Your task to perform on an android device: Add "duracell triple a" to the cart on target, then select checkout. Image 0: 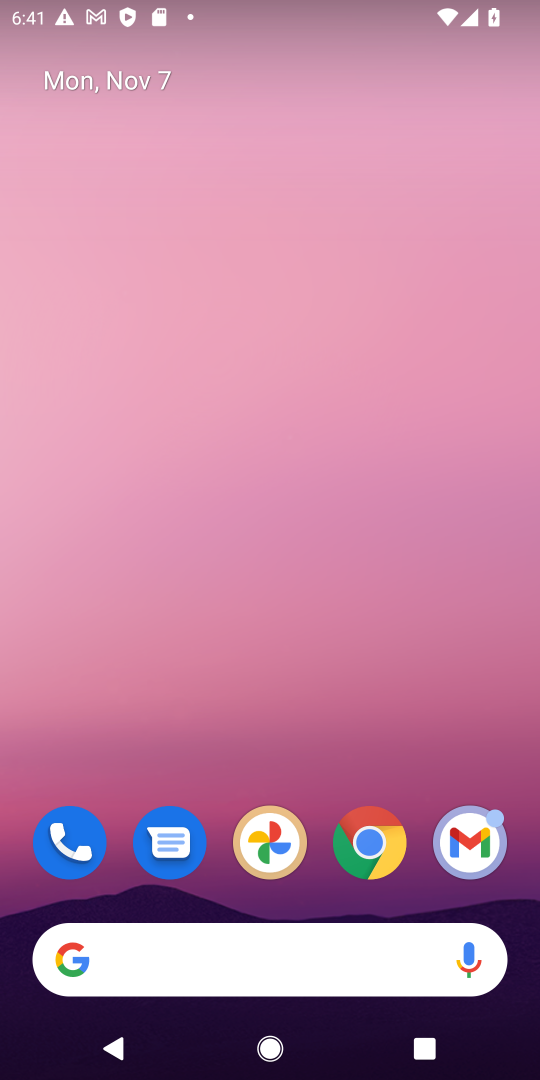
Step 0: drag from (300, 868) to (223, 217)
Your task to perform on an android device: Add "duracell triple a" to the cart on target, then select checkout. Image 1: 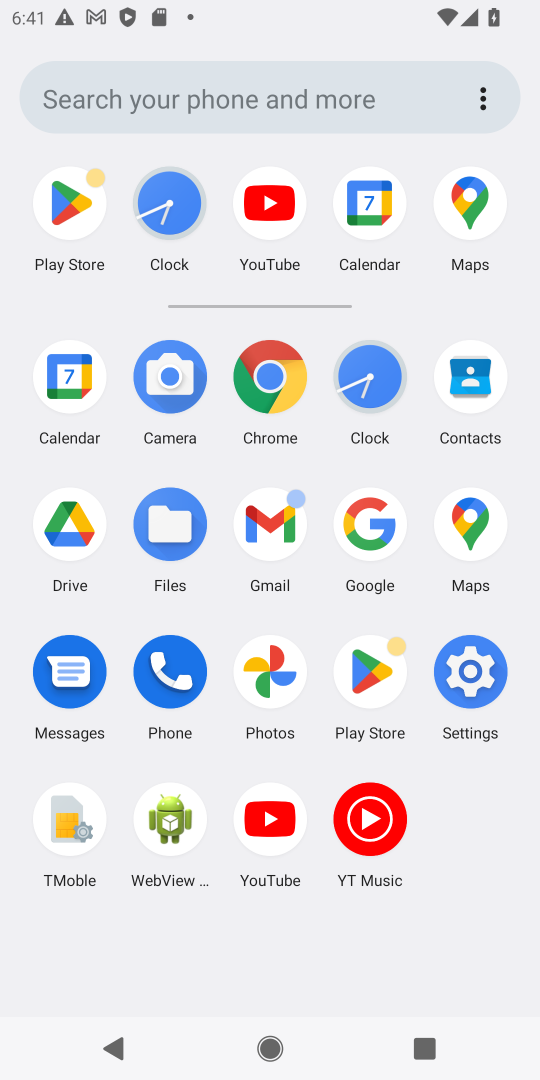
Step 1: click (277, 411)
Your task to perform on an android device: Add "duracell triple a" to the cart on target, then select checkout. Image 2: 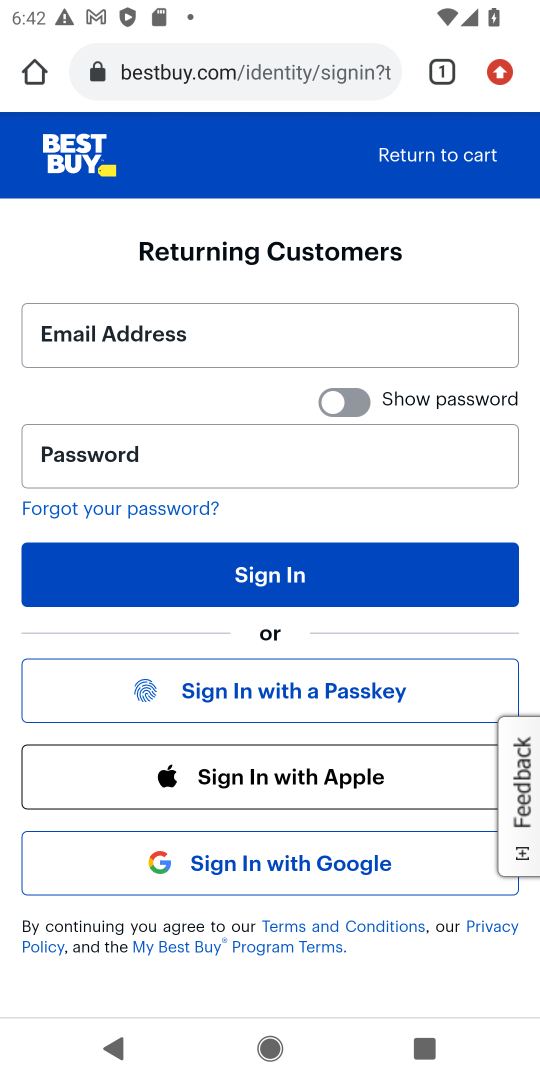
Step 2: click (242, 75)
Your task to perform on an android device: Add "duracell triple a" to the cart on target, then select checkout. Image 3: 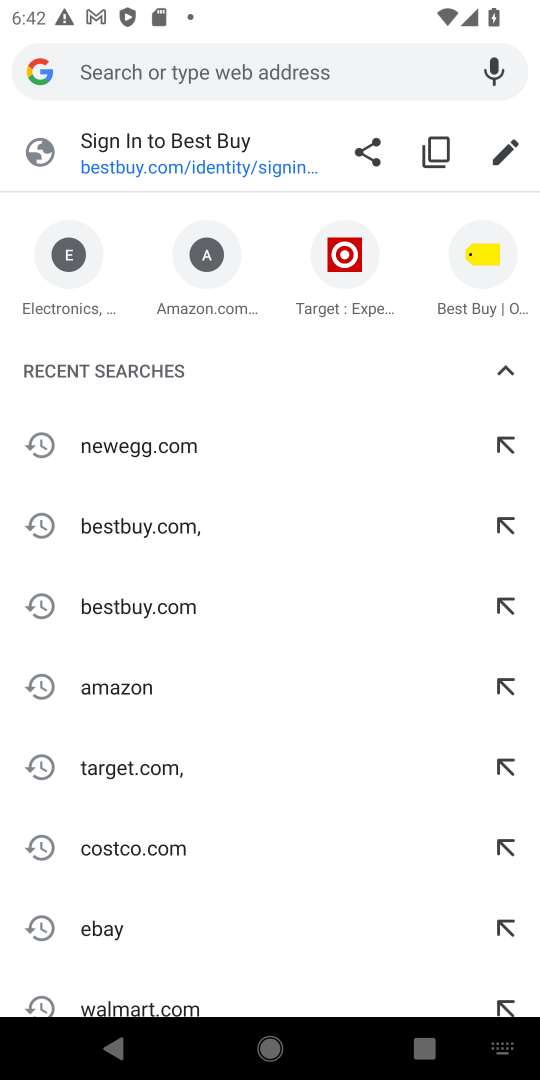
Step 3: type "duracell triple"
Your task to perform on an android device: Add "duracell triple a" to the cart on target, then select checkout. Image 4: 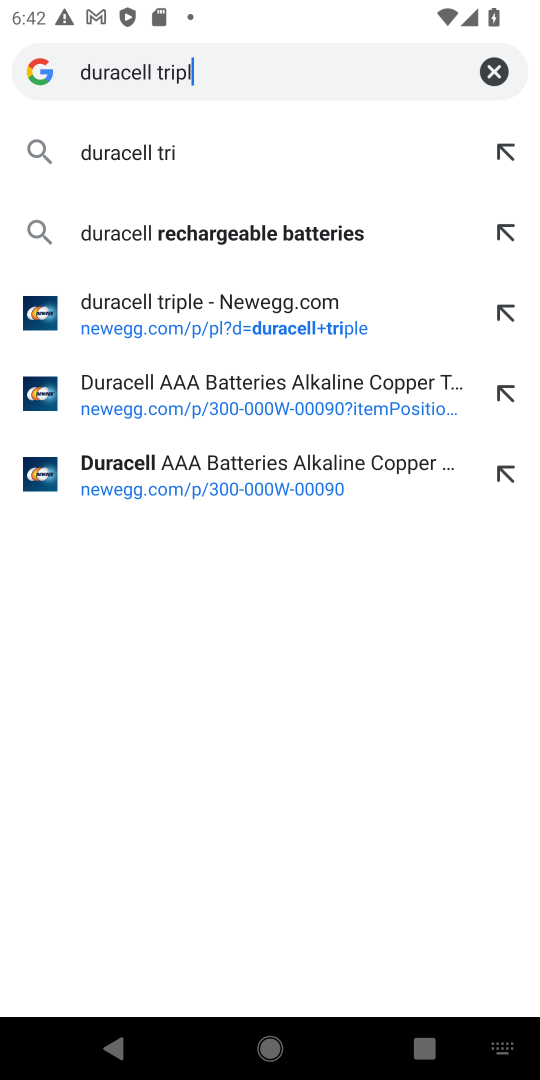
Step 4: press enter
Your task to perform on an android device: Add "duracell triple a" to the cart on target, then select checkout. Image 5: 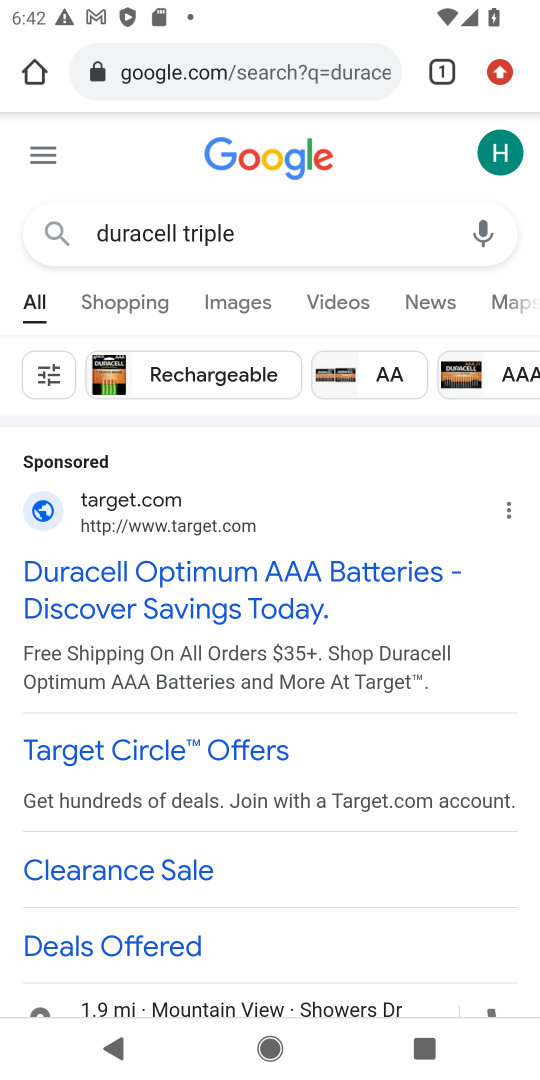
Step 5: click (104, 514)
Your task to perform on an android device: Add "duracell triple a" to the cart on target, then select checkout. Image 6: 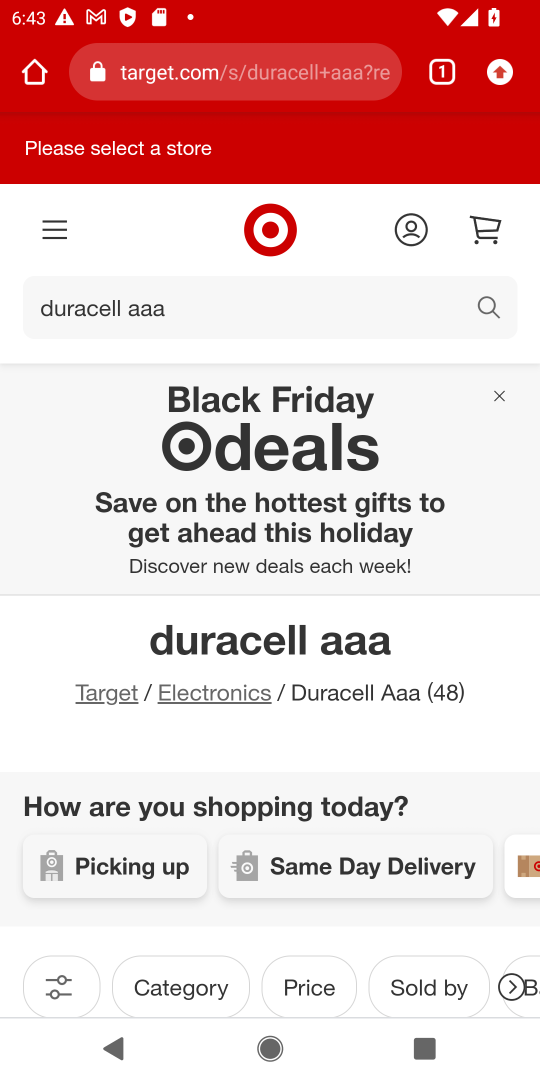
Step 6: drag from (163, 725) to (187, 443)
Your task to perform on an android device: Add "duracell triple a" to the cart on target, then select checkout. Image 7: 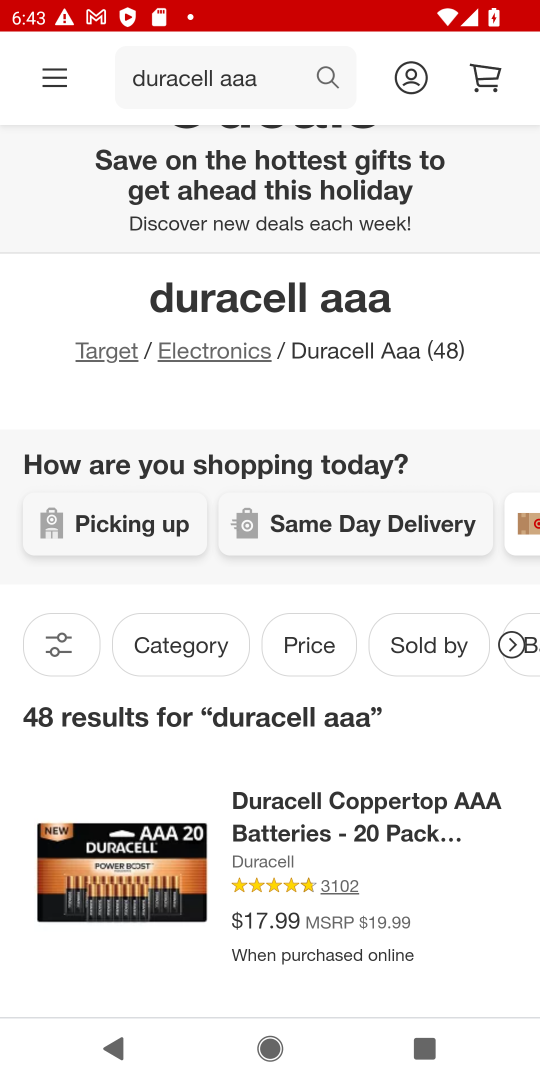
Step 7: drag from (243, 859) to (208, 529)
Your task to perform on an android device: Add "duracell triple a" to the cart on target, then select checkout. Image 8: 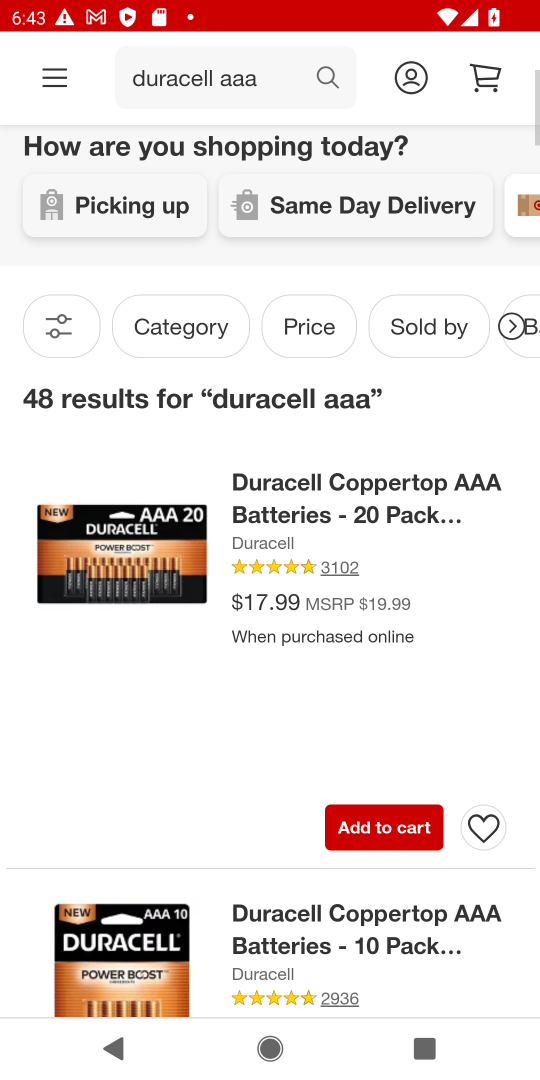
Step 8: click (152, 846)
Your task to perform on an android device: Add "duracell triple a" to the cart on target, then select checkout. Image 9: 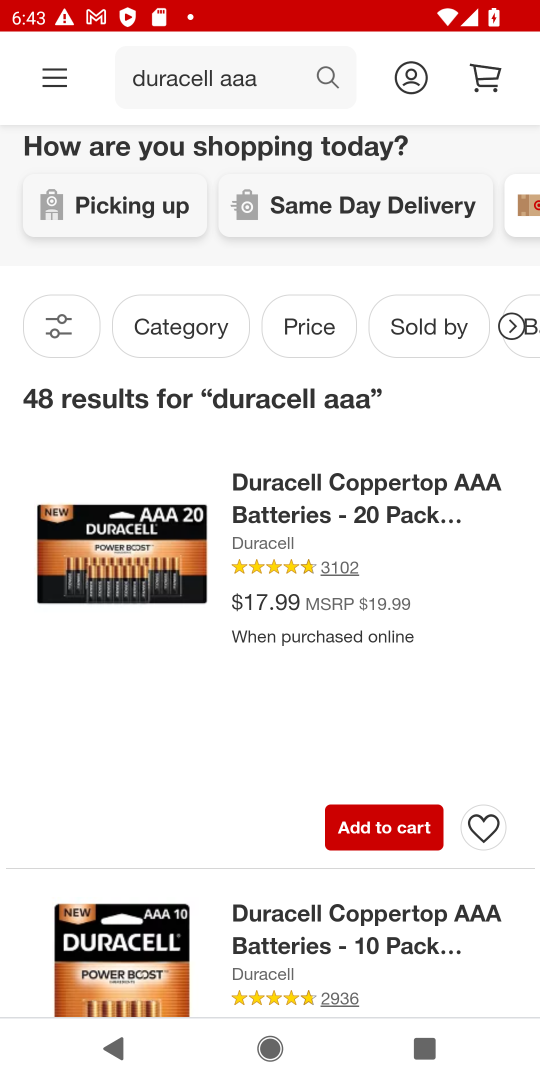
Step 9: click (353, 830)
Your task to perform on an android device: Add "duracell triple a" to the cart on target, then select checkout. Image 10: 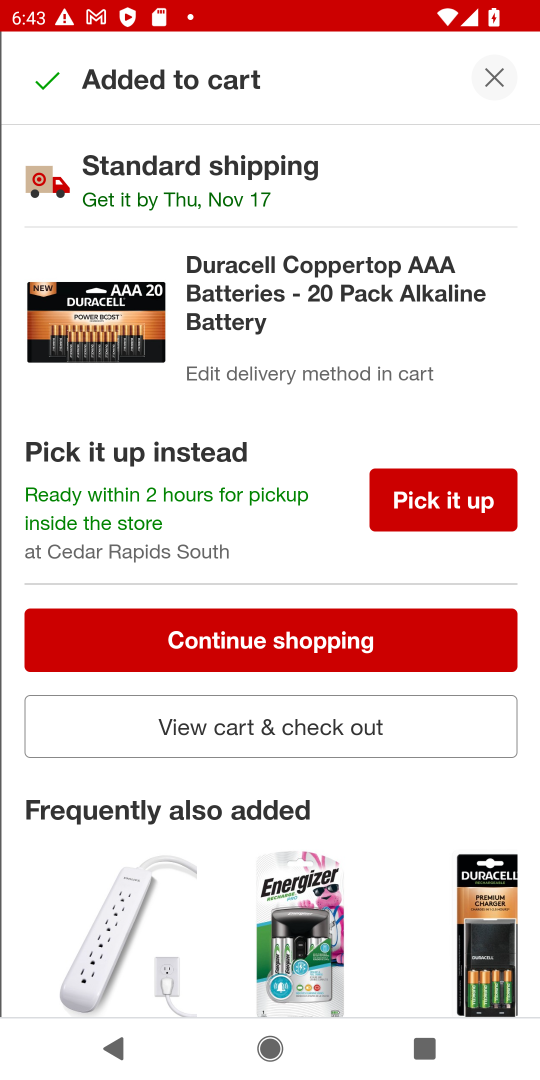
Step 10: click (311, 635)
Your task to perform on an android device: Add "duracell triple a" to the cart on target, then select checkout. Image 11: 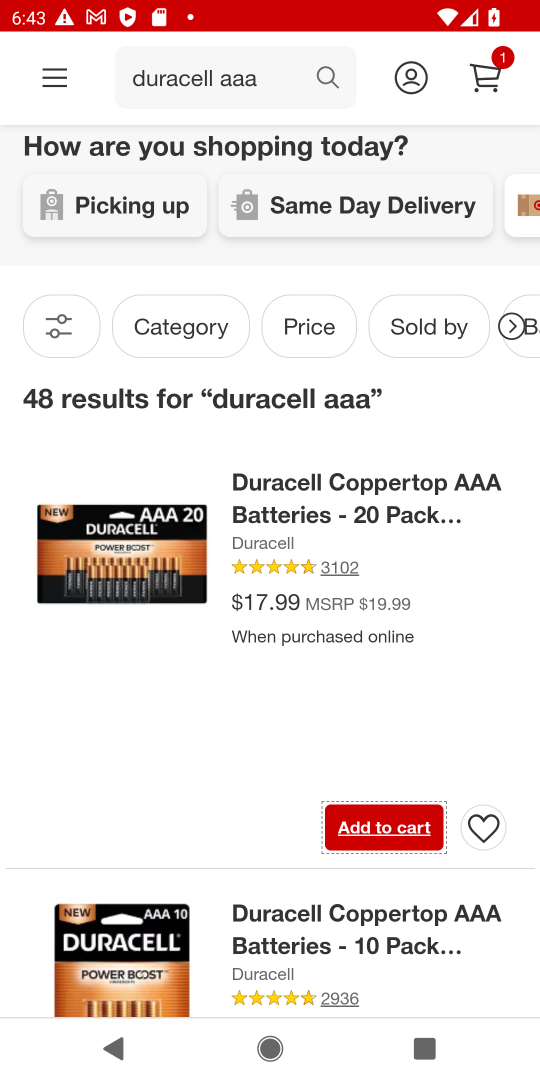
Step 11: click (483, 68)
Your task to perform on an android device: Add "duracell triple a" to the cart on target, then select checkout. Image 12: 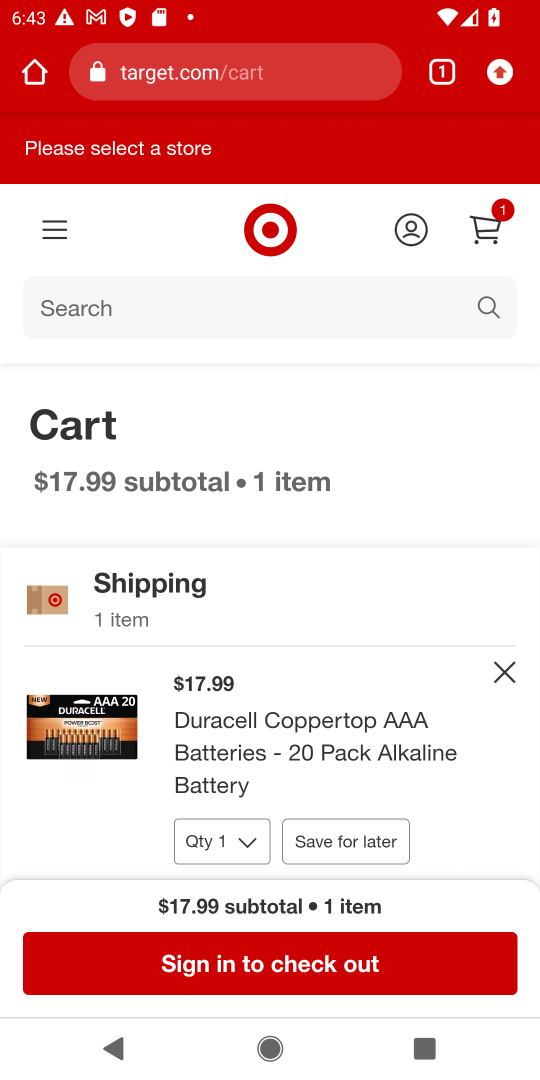
Step 12: click (366, 968)
Your task to perform on an android device: Add "duracell triple a" to the cart on target, then select checkout. Image 13: 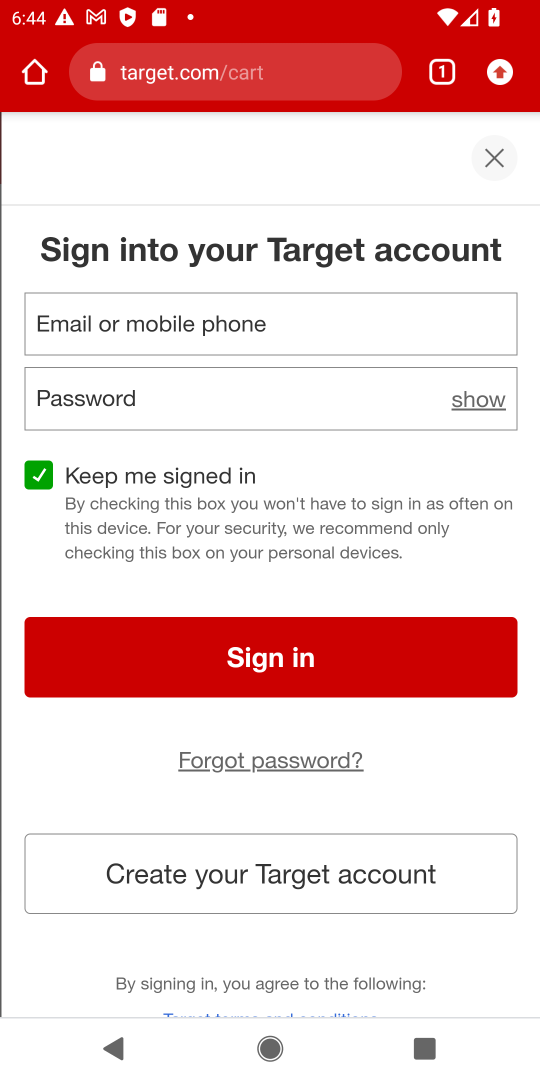
Step 13: task complete